Your task to perform on an android device: make emails show in primary in the gmail app Image 0: 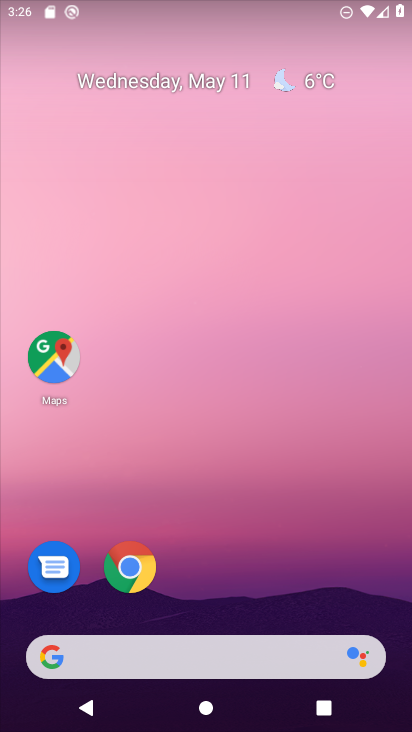
Step 0: click (377, 511)
Your task to perform on an android device: make emails show in primary in the gmail app Image 1: 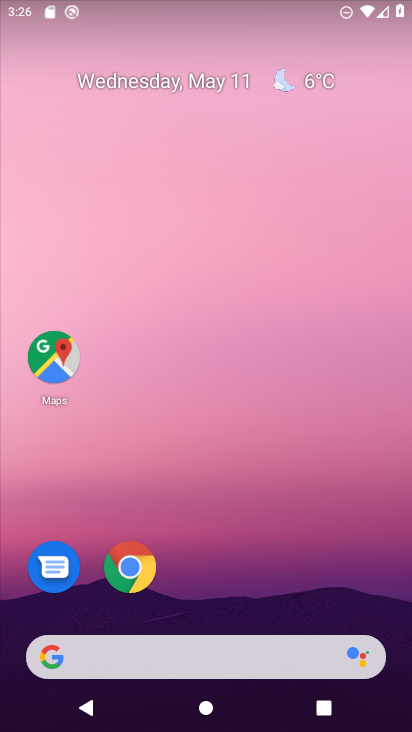
Step 1: drag from (355, 522) to (250, 132)
Your task to perform on an android device: make emails show in primary in the gmail app Image 2: 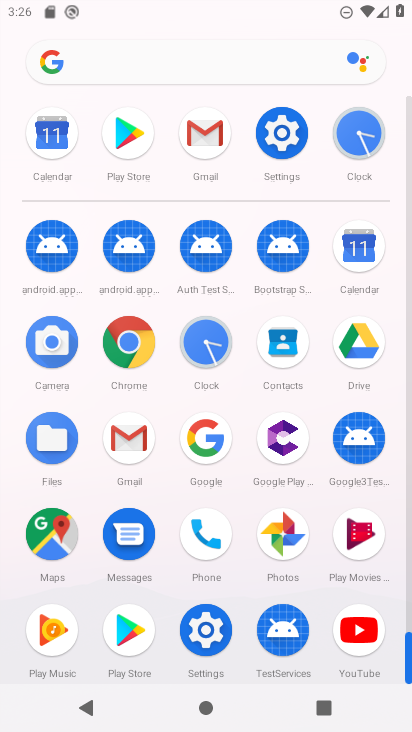
Step 2: click (122, 441)
Your task to perform on an android device: make emails show in primary in the gmail app Image 3: 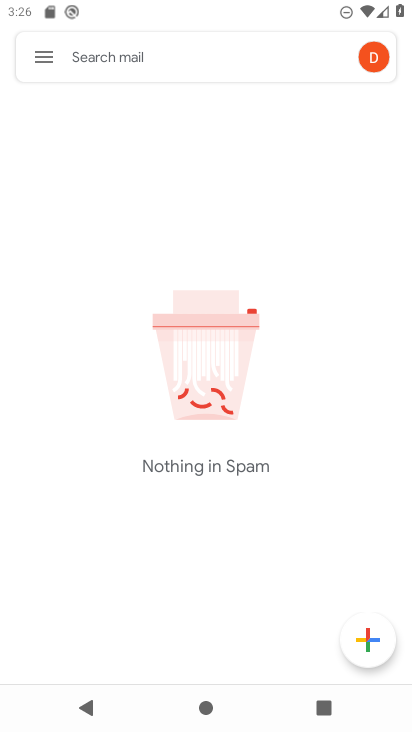
Step 3: click (50, 70)
Your task to perform on an android device: make emails show in primary in the gmail app Image 4: 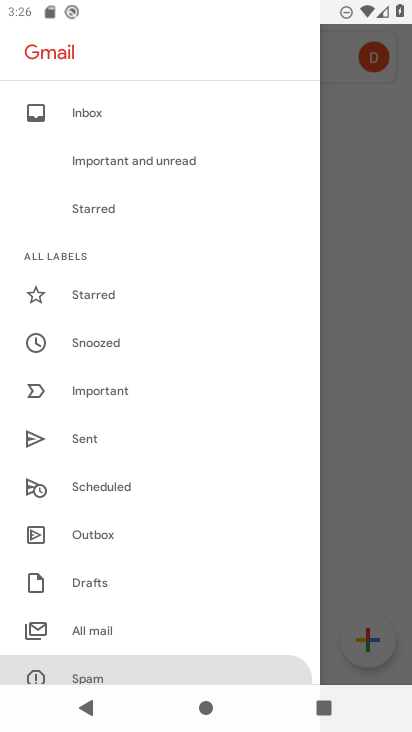
Step 4: drag from (206, 555) to (168, 439)
Your task to perform on an android device: make emails show in primary in the gmail app Image 5: 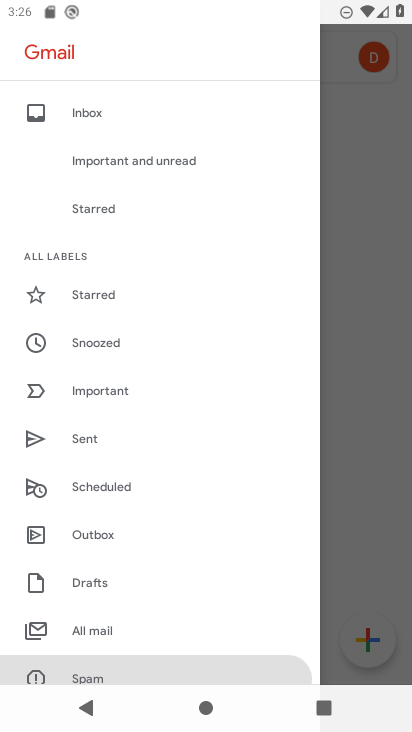
Step 5: drag from (191, 574) to (160, 274)
Your task to perform on an android device: make emails show in primary in the gmail app Image 6: 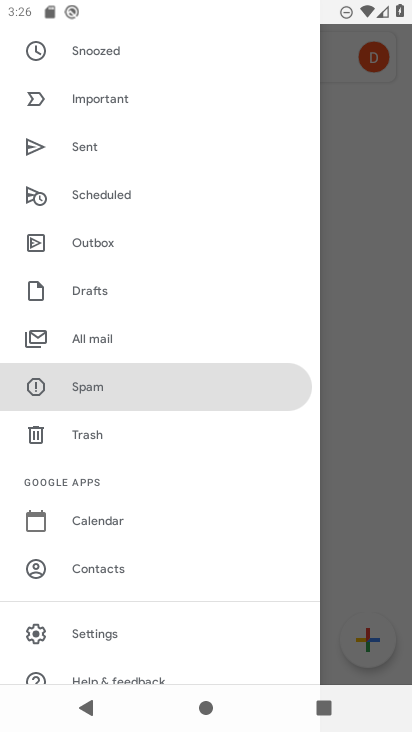
Step 6: click (132, 635)
Your task to perform on an android device: make emails show in primary in the gmail app Image 7: 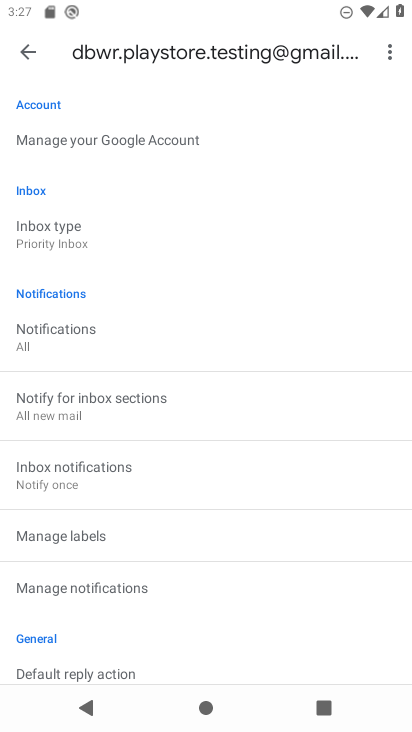
Step 7: click (99, 236)
Your task to perform on an android device: make emails show in primary in the gmail app Image 8: 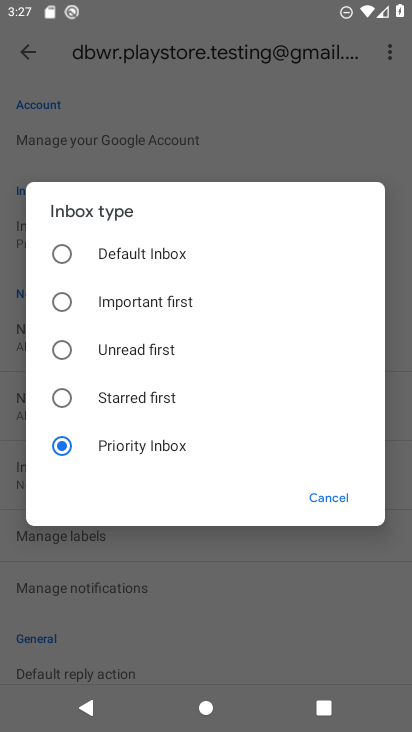
Step 8: click (94, 253)
Your task to perform on an android device: make emails show in primary in the gmail app Image 9: 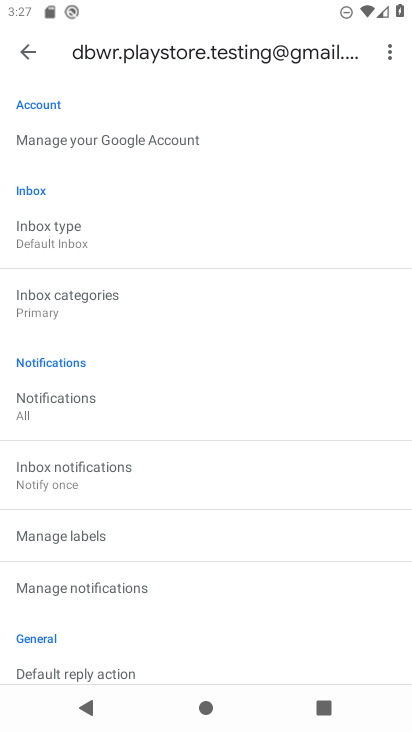
Step 9: click (86, 303)
Your task to perform on an android device: make emails show in primary in the gmail app Image 10: 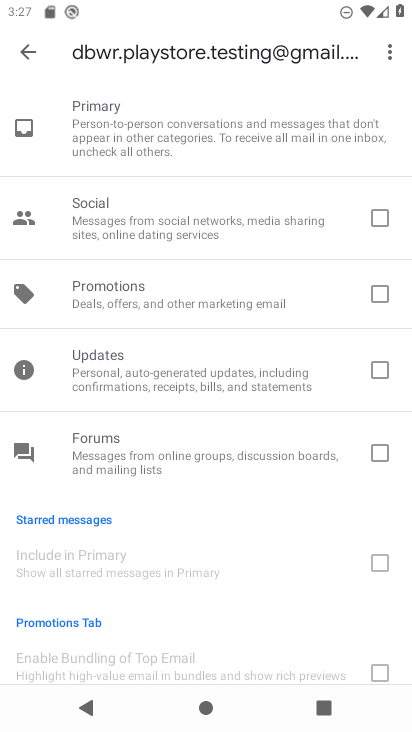
Step 10: task complete